Your task to perform on an android device: Empty the shopping cart on target. Add beats solo 3 to the cart on target Image 0: 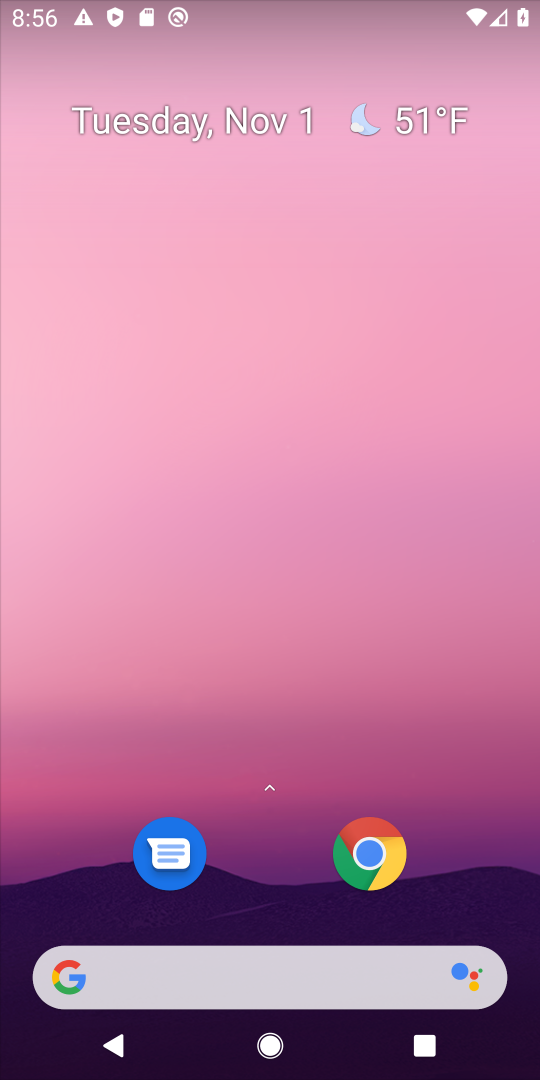
Step 0: click (188, 965)
Your task to perform on an android device: Empty the shopping cart on target. Add beats solo 3 to the cart on target Image 1: 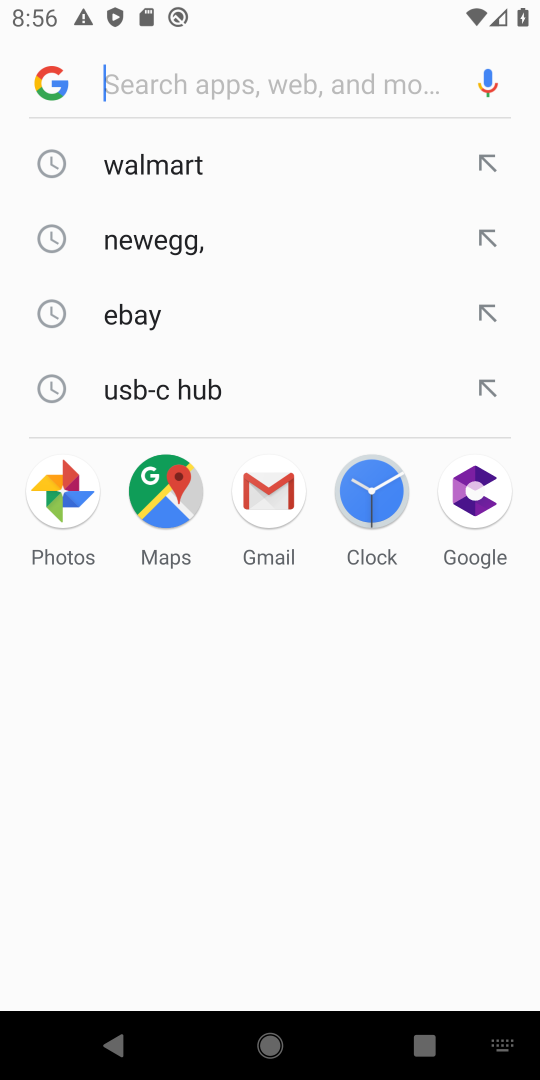
Step 1: type "target"
Your task to perform on an android device: Empty the shopping cart on target. Add beats solo 3 to the cart on target Image 2: 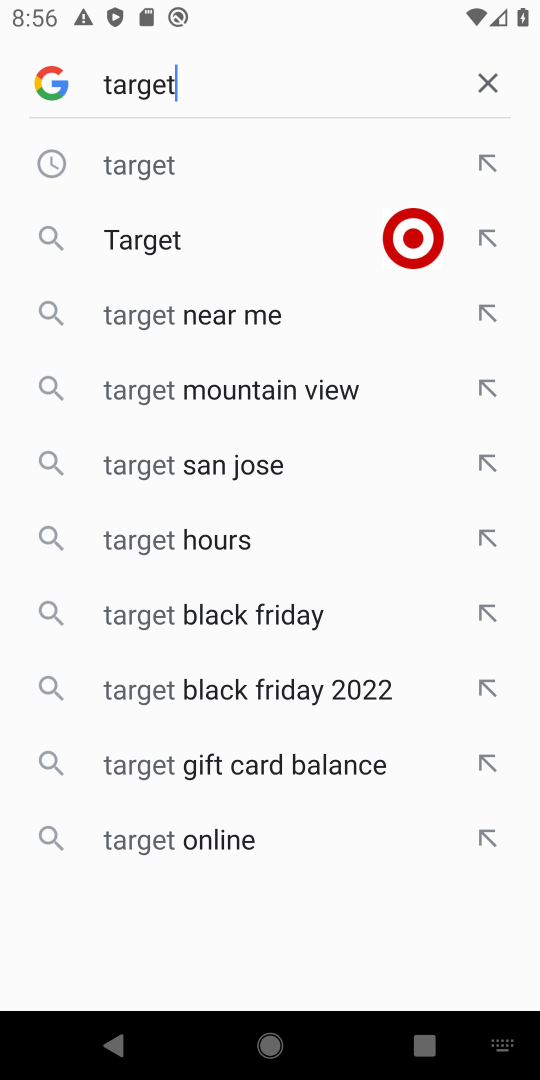
Step 2: click (159, 141)
Your task to perform on an android device: Empty the shopping cart on target. Add beats solo 3 to the cart on target Image 3: 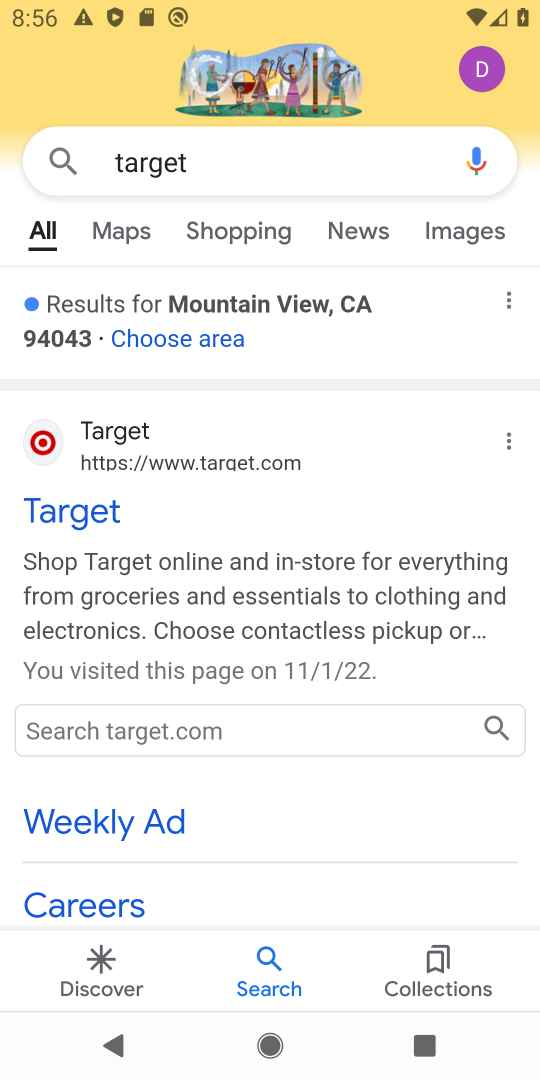
Step 3: click (102, 524)
Your task to perform on an android device: Empty the shopping cart on target. Add beats solo 3 to the cart on target Image 4: 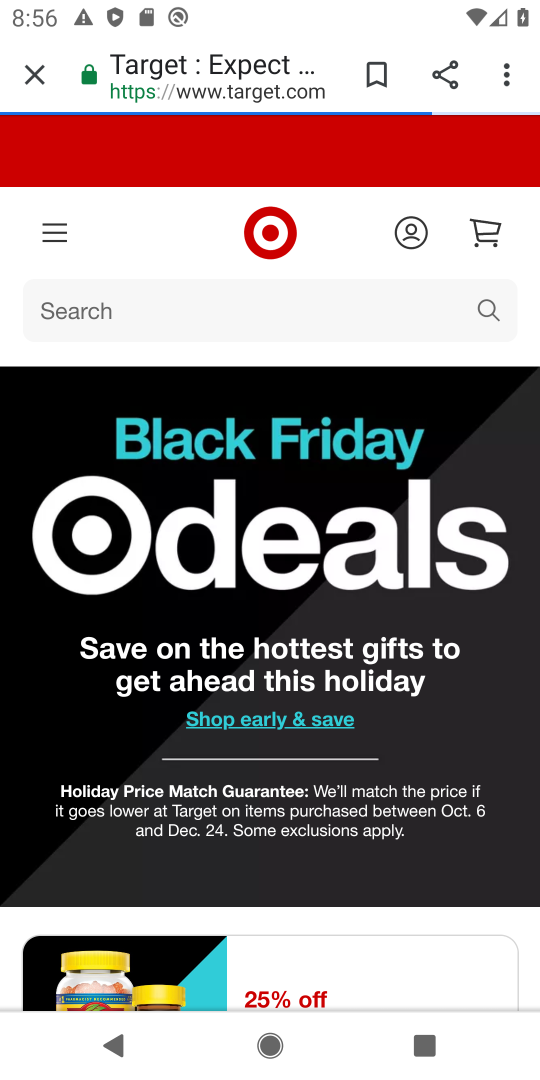
Step 4: click (429, 306)
Your task to perform on an android device: Empty the shopping cart on target. Add beats solo 3 to the cart on target Image 5: 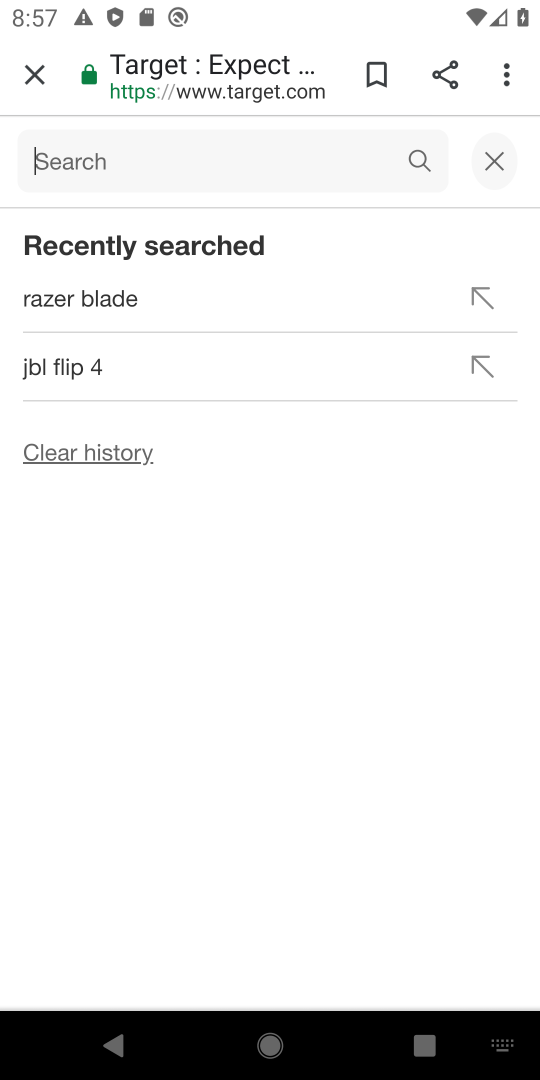
Step 5: type "solo 3"
Your task to perform on an android device: Empty the shopping cart on target. Add beats solo 3 to the cart on target Image 6: 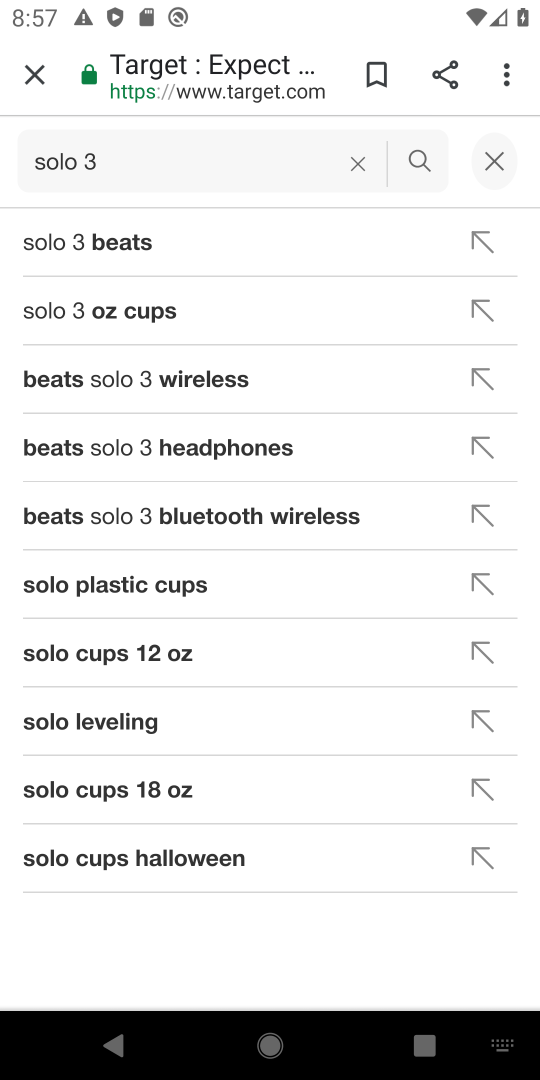
Step 6: click (250, 243)
Your task to perform on an android device: Empty the shopping cart on target. Add beats solo 3 to the cart on target Image 7: 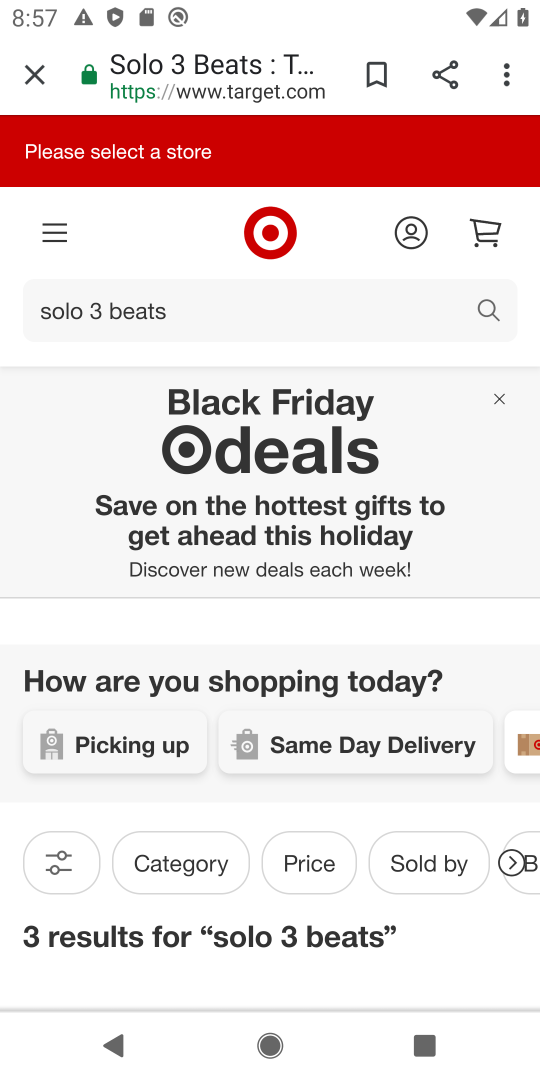
Step 7: click (282, 963)
Your task to perform on an android device: Empty the shopping cart on target. Add beats solo 3 to the cart on target Image 8: 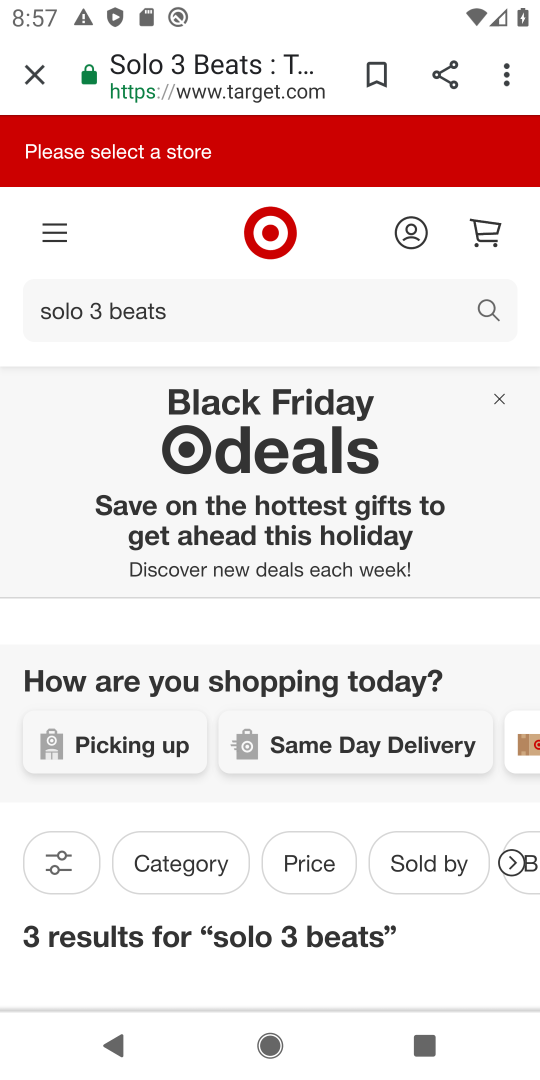
Step 8: drag from (282, 963) to (257, 692)
Your task to perform on an android device: Empty the shopping cart on target. Add beats solo 3 to the cart on target Image 9: 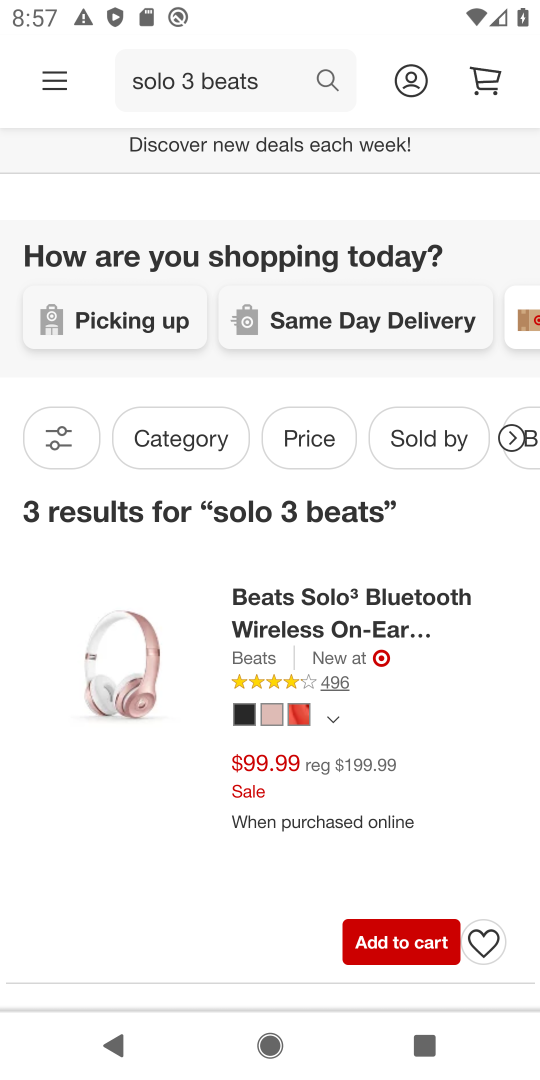
Step 9: click (424, 931)
Your task to perform on an android device: Empty the shopping cart on target. Add beats solo 3 to the cart on target Image 10: 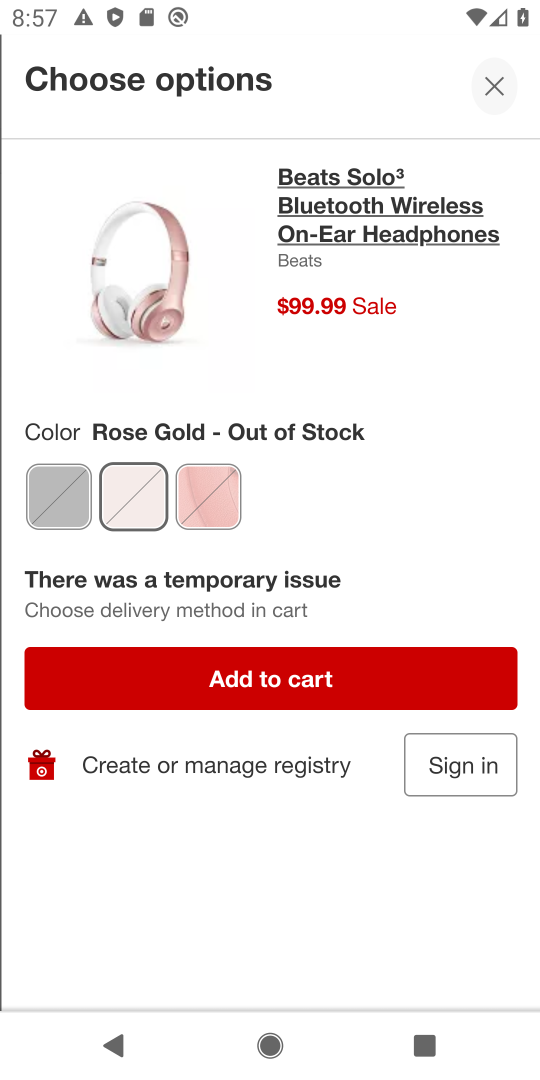
Step 10: click (311, 670)
Your task to perform on an android device: Empty the shopping cart on target. Add beats solo 3 to the cart on target Image 11: 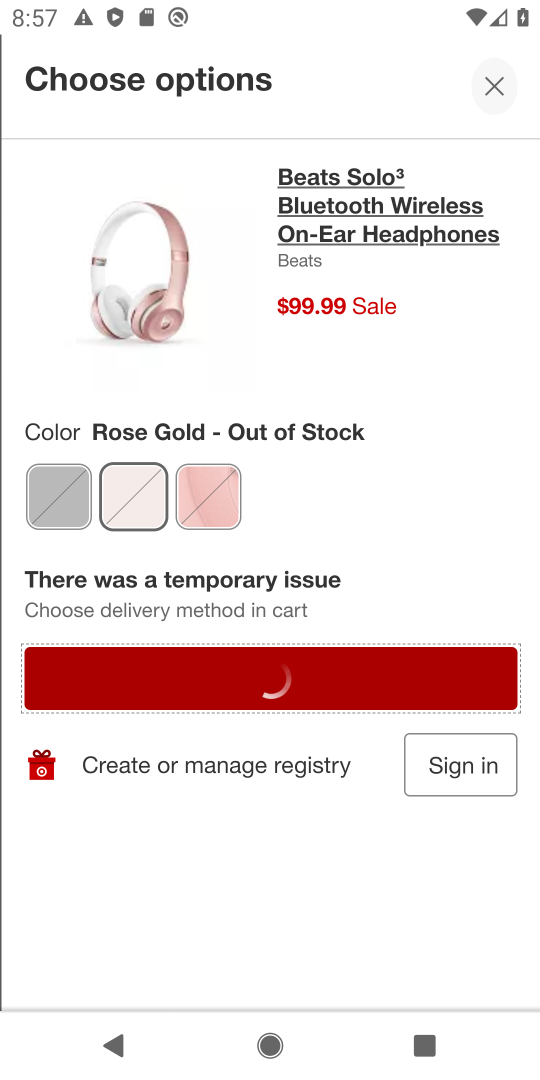
Step 11: task complete